Your task to perform on an android device: Open calendar and show me the first week of next month Image 0: 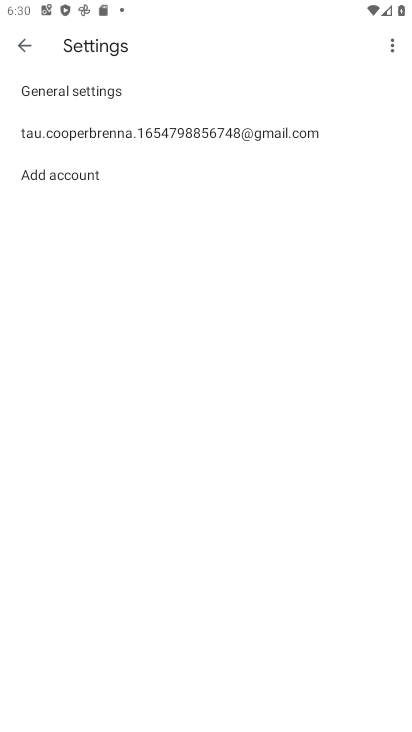
Step 0: press home button
Your task to perform on an android device: Open calendar and show me the first week of next month Image 1: 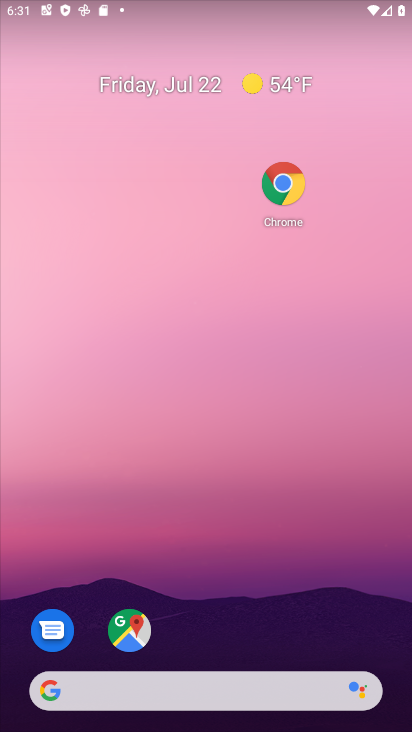
Step 1: click (158, 231)
Your task to perform on an android device: Open calendar and show me the first week of next month Image 2: 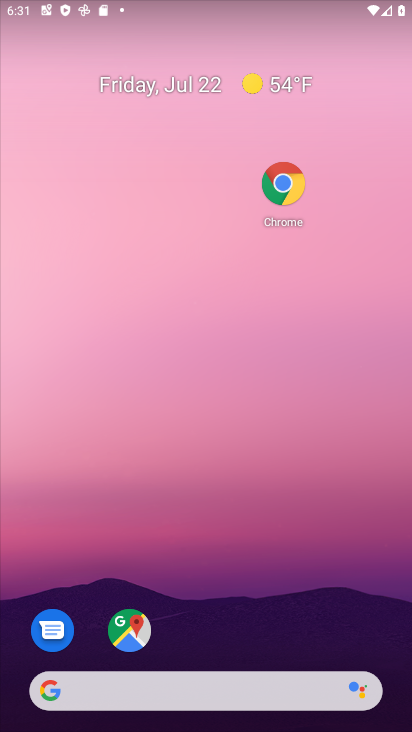
Step 2: drag from (194, 615) to (159, 2)
Your task to perform on an android device: Open calendar and show me the first week of next month Image 3: 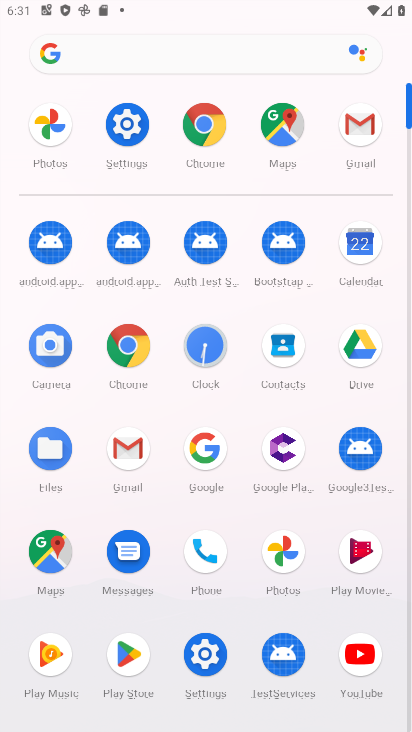
Step 3: click (349, 254)
Your task to perform on an android device: Open calendar and show me the first week of next month Image 4: 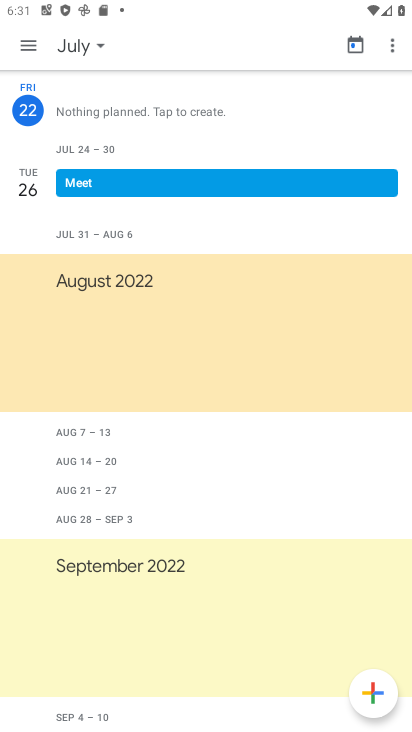
Step 4: click (33, 46)
Your task to perform on an android device: Open calendar and show me the first week of next month Image 5: 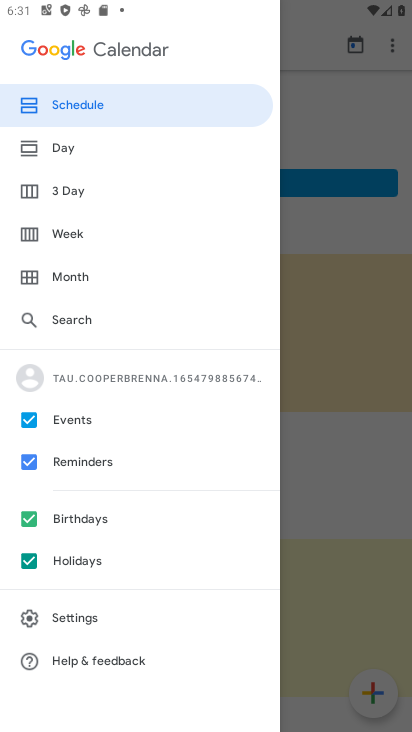
Step 5: click (64, 240)
Your task to perform on an android device: Open calendar and show me the first week of next month Image 6: 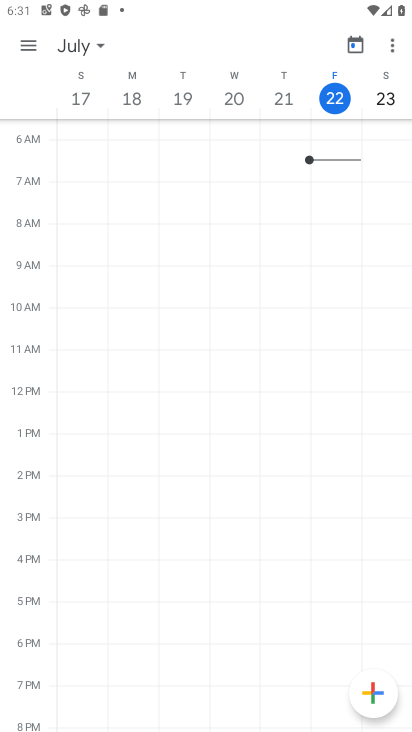
Step 6: click (74, 49)
Your task to perform on an android device: Open calendar and show me the first week of next month Image 7: 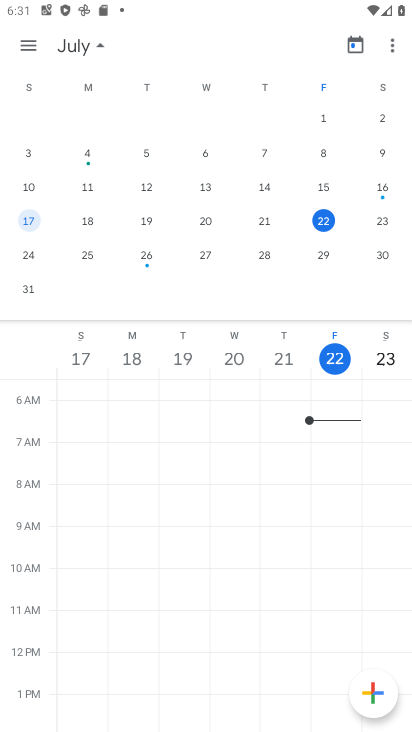
Step 7: task complete